Your task to perform on an android device: open app "Google Duo" (install if not already installed) Image 0: 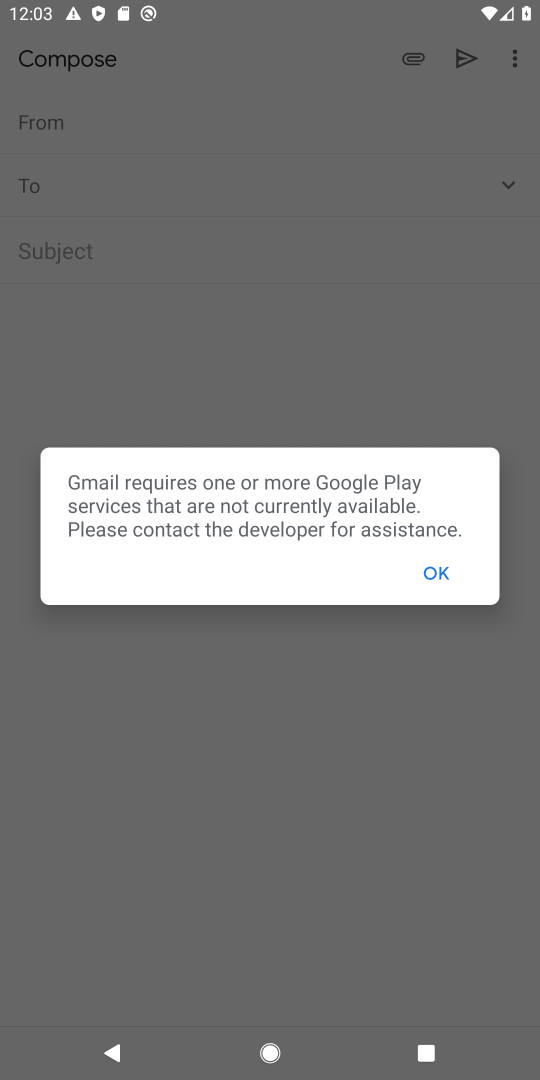
Step 0: press home button
Your task to perform on an android device: open app "Google Duo" (install if not already installed) Image 1: 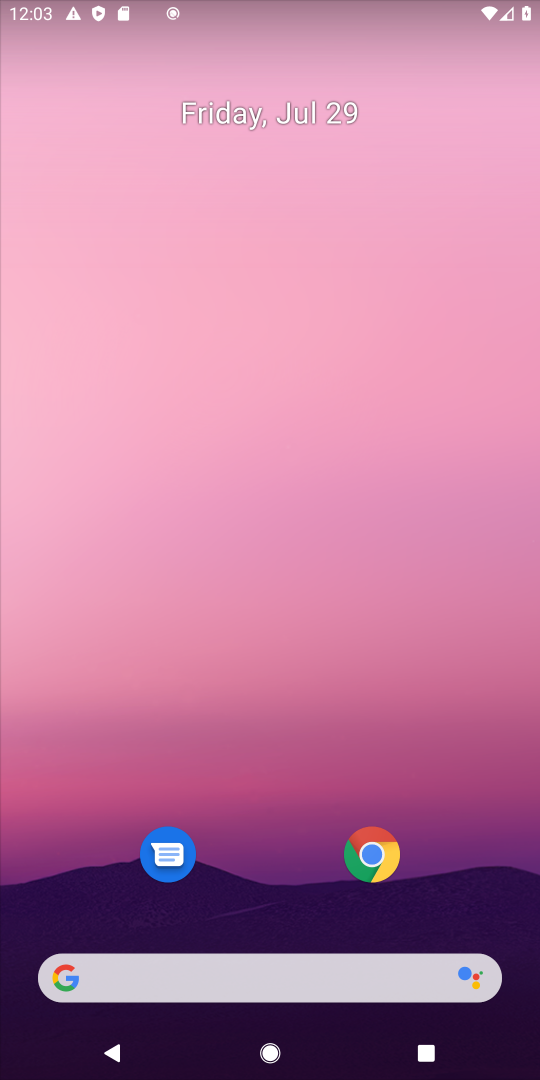
Step 1: drag from (269, 874) to (272, 46)
Your task to perform on an android device: open app "Google Duo" (install if not already installed) Image 2: 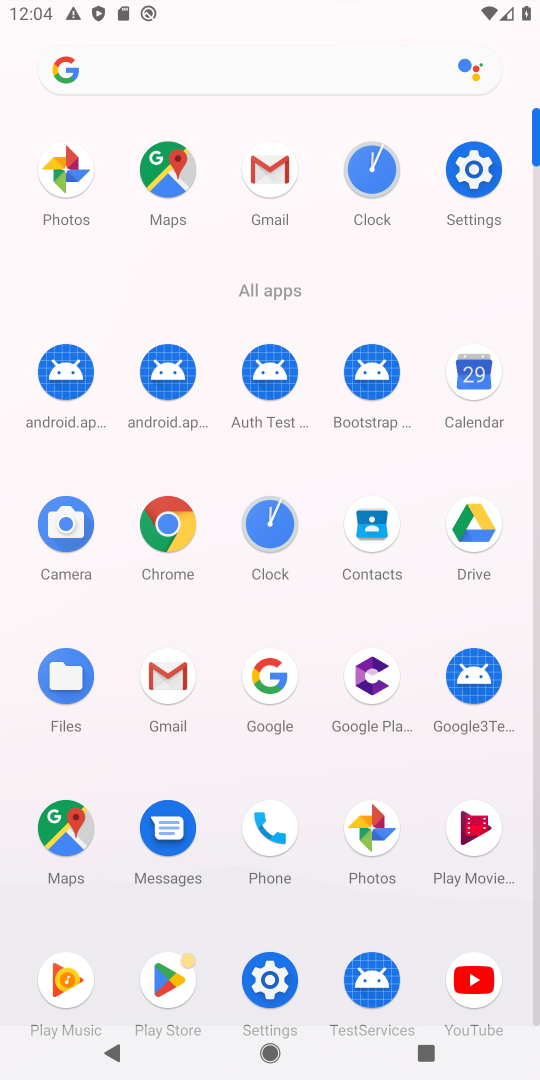
Step 2: click (182, 966)
Your task to perform on an android device: open app "Google Duo" (install if not already installed) Image 3: 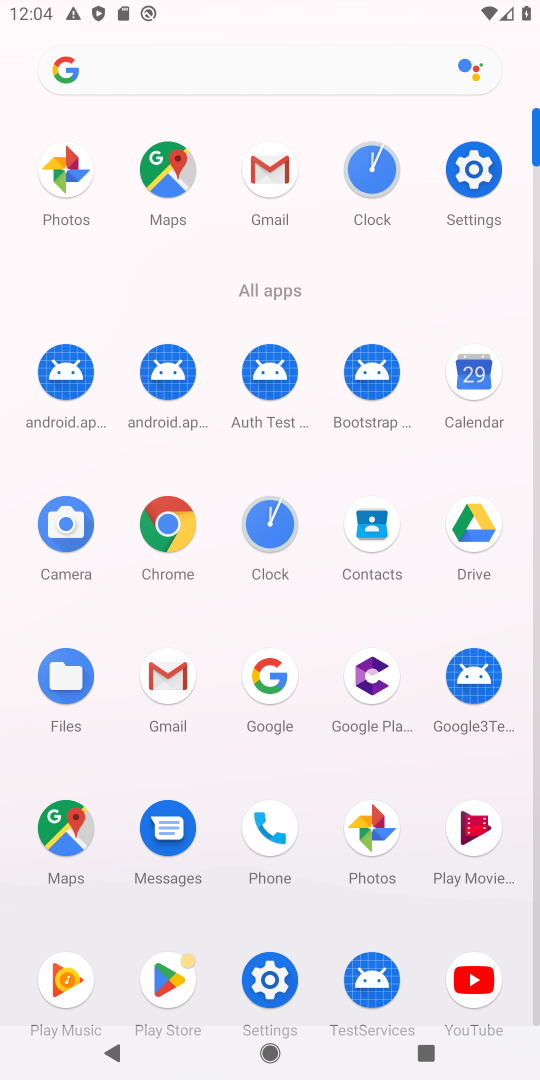
Step 3: click (171, 966)
Your task to perform on an android device: open app "Google Duo" (install if not already installed) Image 4: 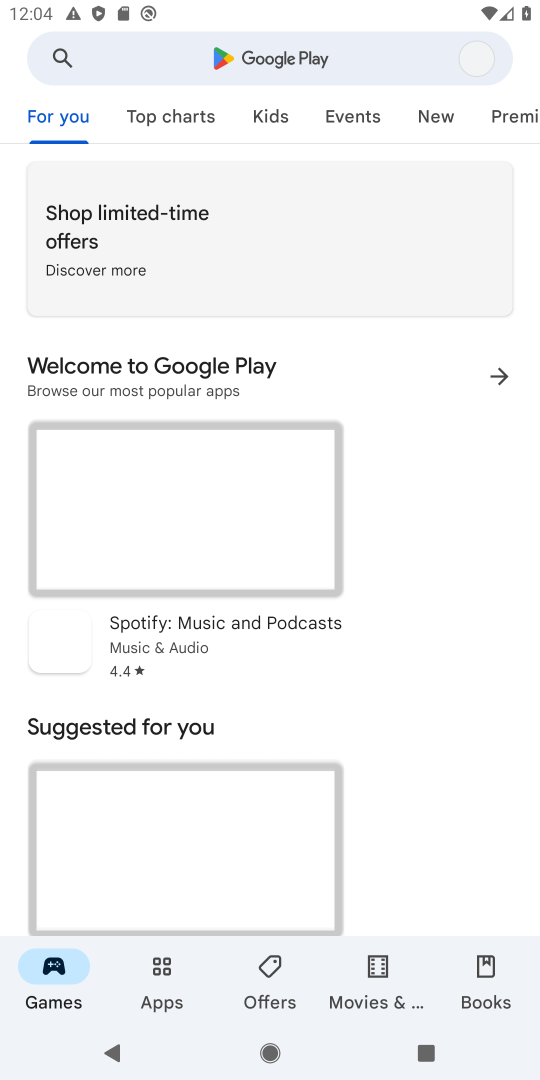
Step 4: click (298, 56)
Your task to perform on an android device: open app "Google Duo" (install if not already installed) Image 5: 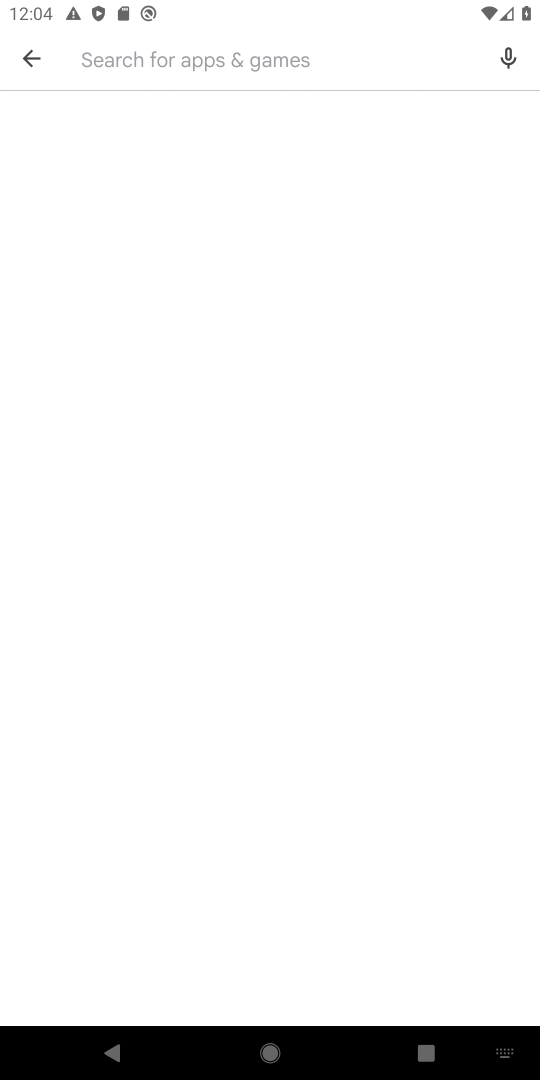
Step 5: type "Google Duo"
Your task to perform on an android device: open app "Google Duo" (install if not already installed) Image 6: 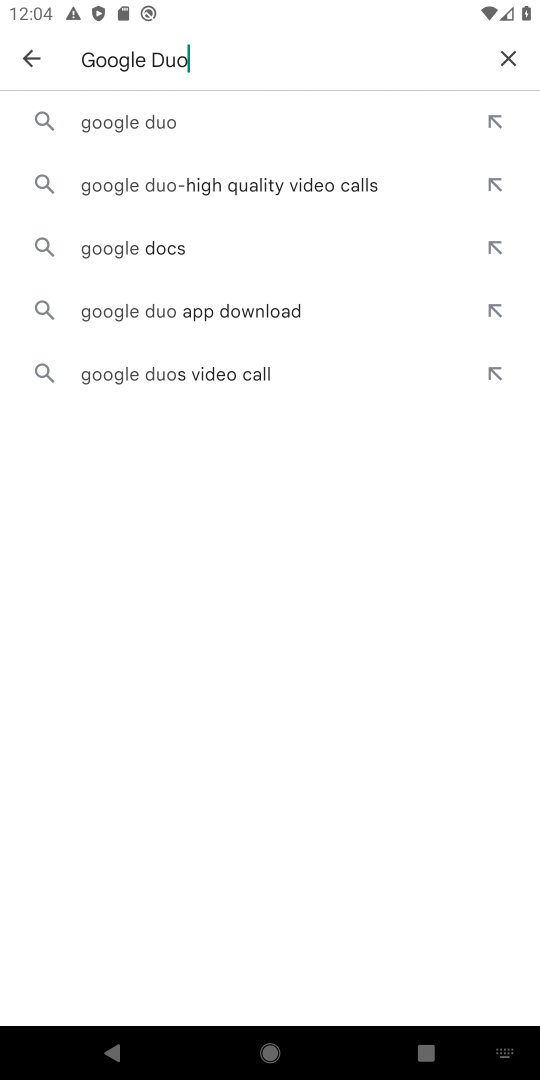
Step 6: click (124, 114)
Your task to perform on an android device: open app "Google Duo" (install if not already installed) Image 7: 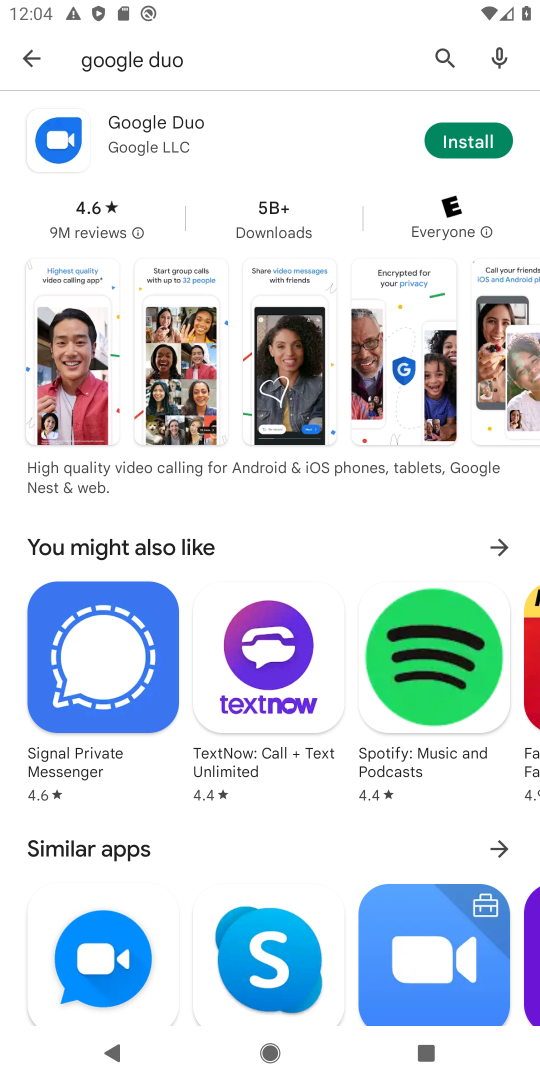
Step 7: click (153, 117)
Your task to perform on an android device: open app "Google Duo" (install if not already installed) Image 8: 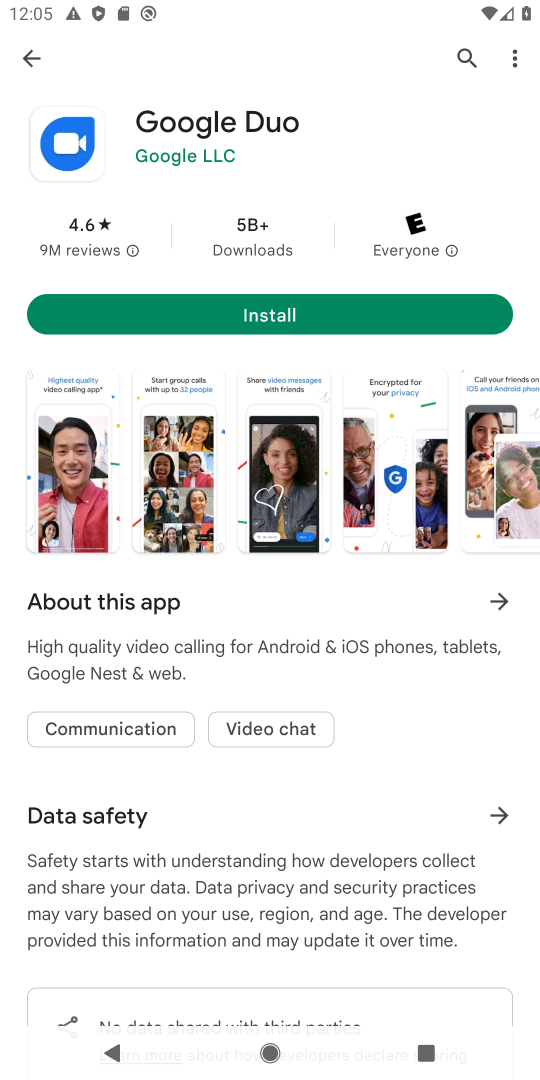
Step 8: click (242, 320)
Your task to perform on an android device: open app "Google Duo" (install if not already installed) Image 9: 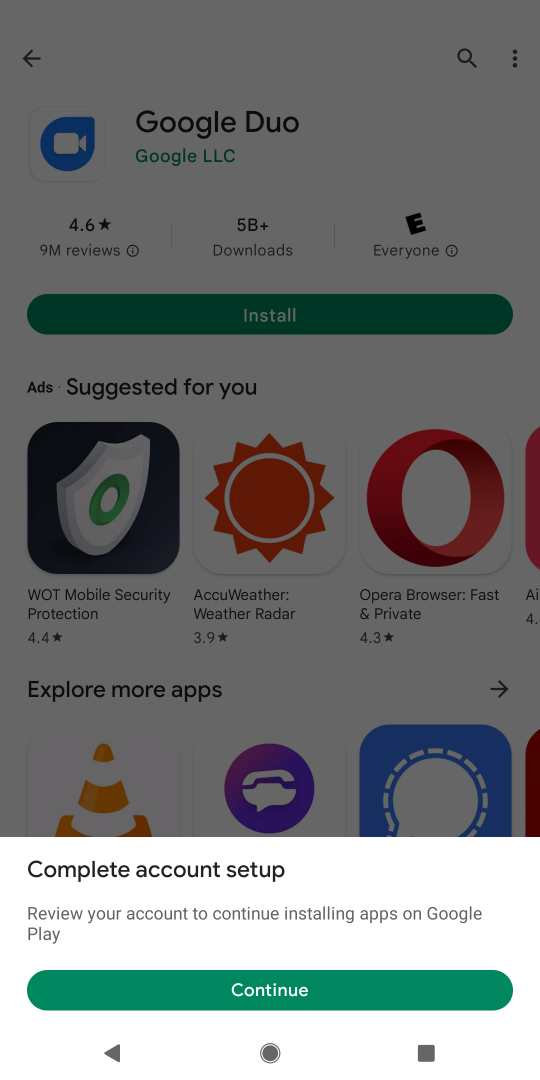
Step 9: click (328, 979)
Your task to perform on an android device: open app "Google Duo" (install if not already installed) Image 10: 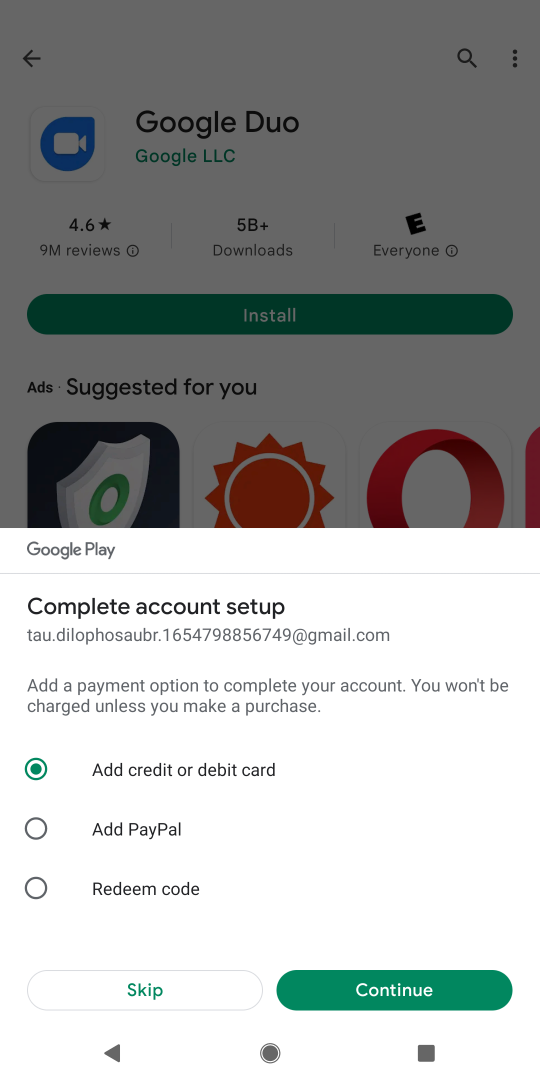
Step 10: click (116, 983)
Your task to perform on an android device: open app "Google Duo" (install if not already installed) Image 11: 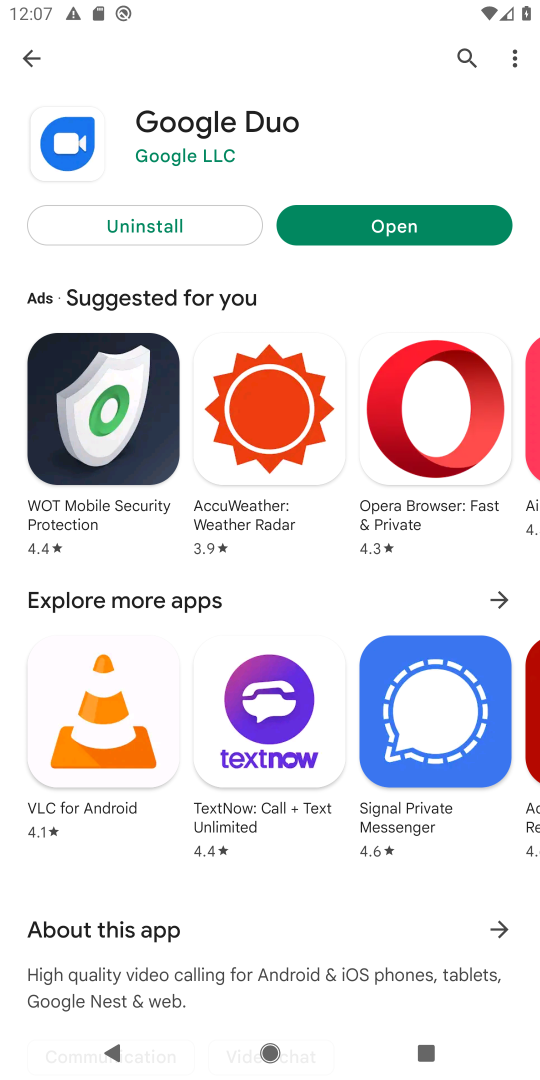
Step 11: click (346, 230)
Your task to perform on an android device: open app "Google Duo" (install if not already installed) Image 12: 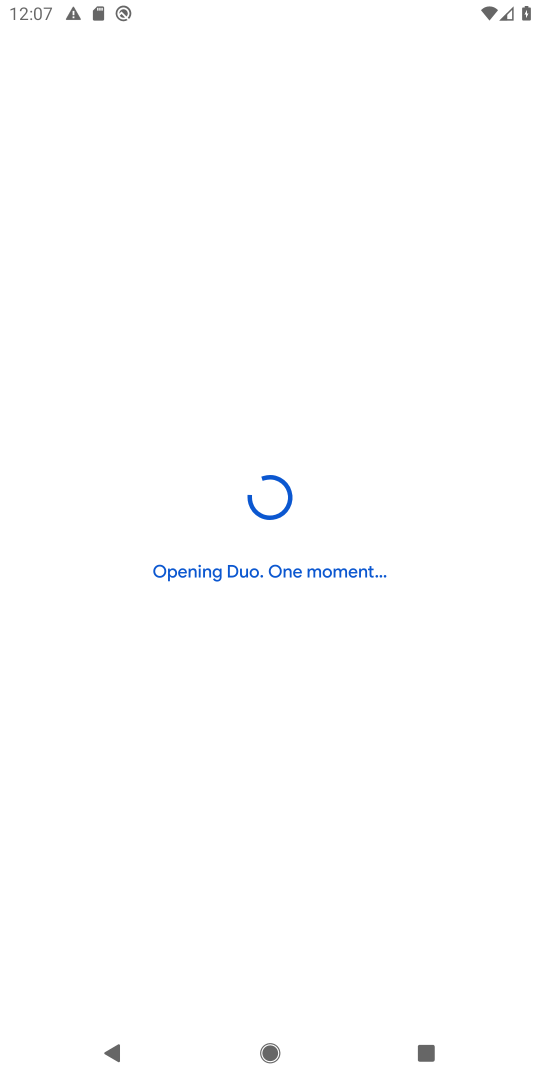
Step 12: task complete